Your task to perform on an android device: open app "Adobe Express: Graphic Design" (install if not already installed) and enter user name: "deliveries@gmail.com" and password: "regimentation" Image 0: 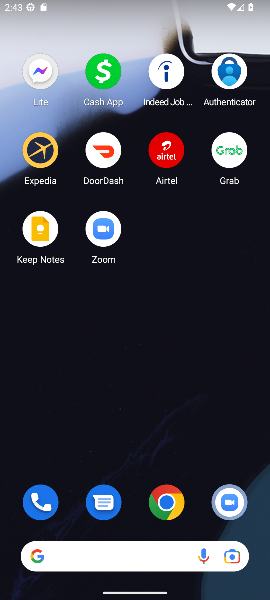
Step 0: drag from (147, 528) to (129, 150)
Your task to perform on an android device: open app "Adobe Express: Graphic Design" (install if not already installed) and enter user name: "deliveries@gmail.com" and password: "regimentation" Image 1: 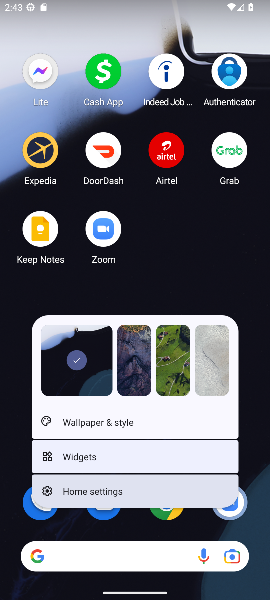
Step 1: click (169, 243)
Your task to perform on an android device: open app "Adobe Express: Graphic Design" (install if not already installed) and enter user name: "deliveries@gmail.com" and password: "regimentation" Image 2: 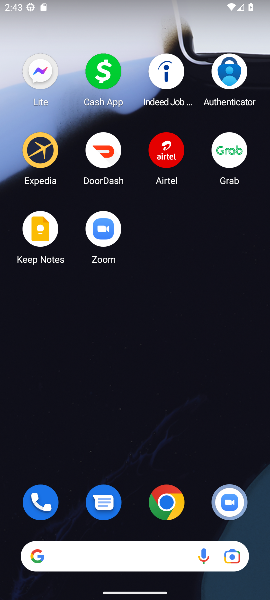
Step 2: drag from (138, 535) to (161, 72)
Your task to perform on an android device: open app "Adobe Express: Graphic Design" (install if not already installed) and enter user name: "deliveries@gmail.com" and password: "regimentation" Image 3: 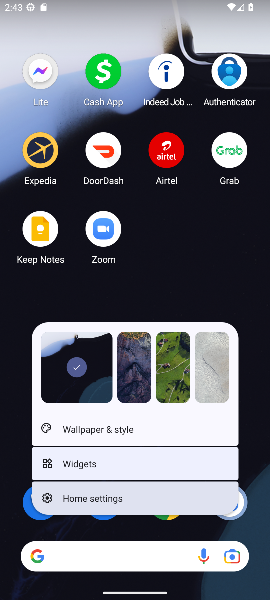
Step 3: click (159, 252)
Your task to perform on an android device: open app "Adobe Express: Graphic Design" (install if not already installed) and enter user name: "deliveries@gmail.com" and password: "regimentation" Image 4: 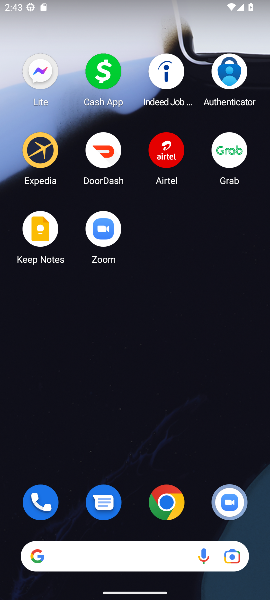
Step 4: drag from (141, 480) to (158, 114)
Your task to perform on an android device: open app "Adobe Express: Graphic Design" (install if not already installed) and enter user name: "deliveries@gmail.com" and password: "regimentation" Image 5: 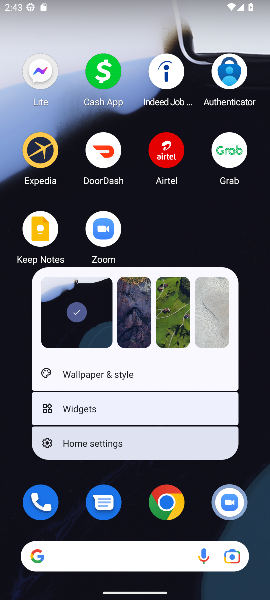
Step 5: click (168, 202)
Your task to perform on an android device: open app "Adobe Express: Graphic Design" (install if not already installed) and enter user name: "deliveries@gmail.com" and password: "regimentation" Image 6: 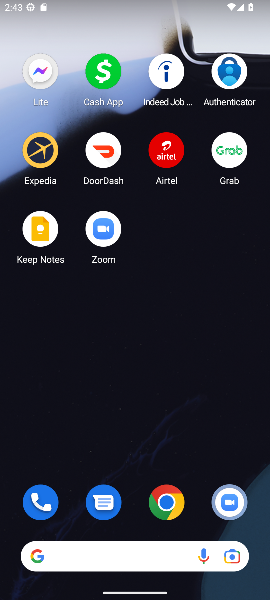
Step 6: drag from (140, 522) to (145, 54)
Your task to perform on an android device: open app "Adobe Express: Graphic Design" (install if not already installed) and enter user name: "deliveries@gmail.com" and password: "regimentation" Image 7: 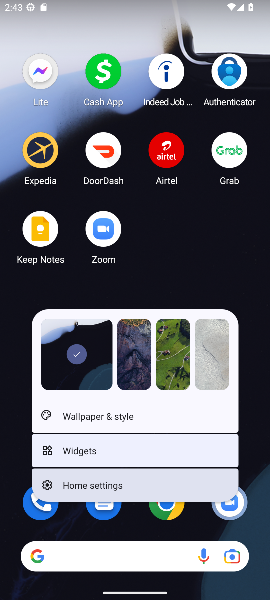
Step 7: click (166, 267)
Your task to perform on an android device: open app "Adobe Express: Graphic Design" (install if not already installed) and enter user name: "deliveries@gmail.com" and password: "regimentation" Image 8: 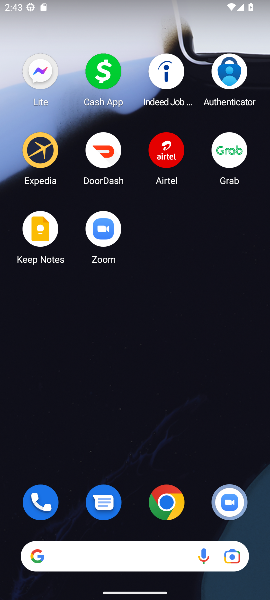
Step 8: click (186, 420)
Your task to perform on an android device: open app "Adobe Express: Graphic Design" (install if not already installed) and enter user name: "deliveries@gmail.com" and password: "regimentation" Image 9: 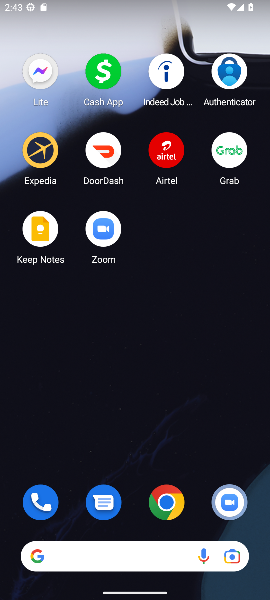
Step 9: drag from (130, 529) to (129, 59)
Your task to perform on an android device: open app "Adobe Express: Graphic Design" (install if not already installed) and enter user name: "deliveries@gmail.com" and password: "regimentation" Image 10: 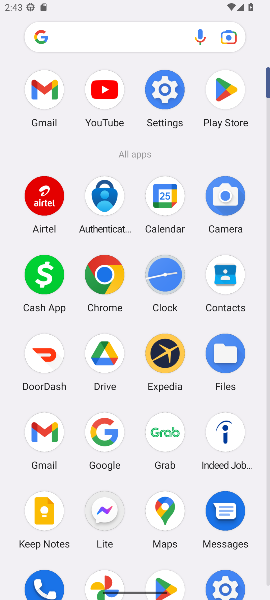
Step 10: click (217, 102)
Your task to perform on an android device: open app "Adobe Express: Graphic Design" (install if not already installed) and enter user name: "deliveries@gmail.com" and password: "regimentation" Image 11: 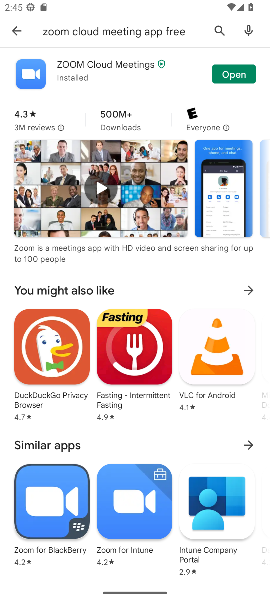
Step 11: click (222, 39)
Your task to perform on an android device: open app "Adobe Express: Graphic Design" (install if not already installed) and enter user name: "deliveries@gmail.com" and password: "regimentation" Image 12: 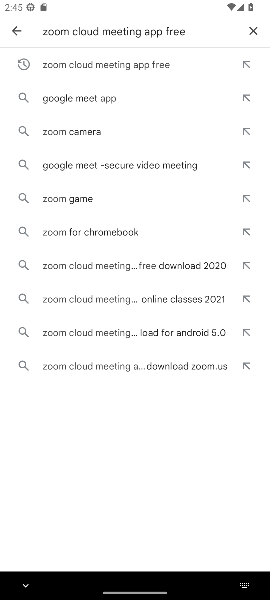
Step 12: click (248, 39)
Your task to perform on an android device: open app "Adobe Express: Graphic Design" (install if not already installed) and enter user name: "deliveries@gmail.com" and password: "regimentation" Image 13: 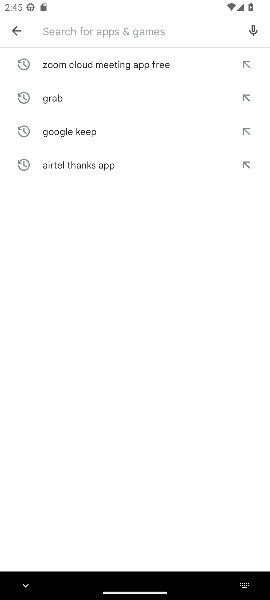
Step 13: type "adobe"
Your task to perform on an android device: open app "Adobe Express: Graphic Design" (install if not already installed) and enter user name: "deliveries@gmail.com" and password: "regimentation" Image 14: 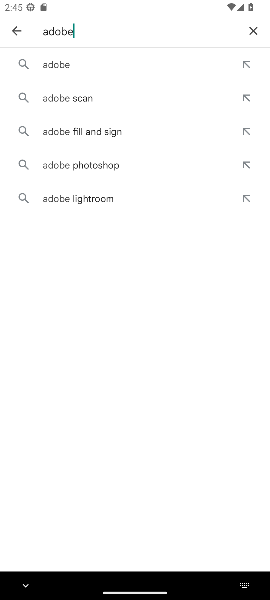
Step 14: click (96, 71)
Your task to perform on an android device: open app "Adobe Express: Graphic Design" (install if not already installed) and enter user name: "deliveries@gmail.com" and password: "regimentation" Image 15: 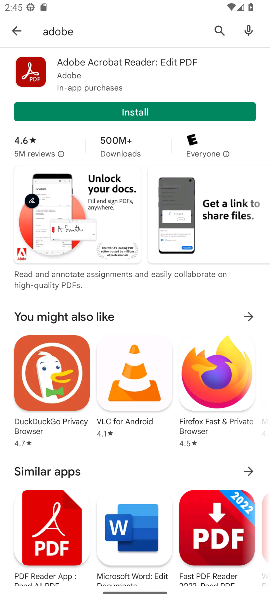
Step 15: click (170, 111)
Your task to perform on an android device: open app "Adobe Express: Graphic Design" (install if not already installed) and enter user name: "deliveries@gmail.com" and password: "regimentation" Image 16: 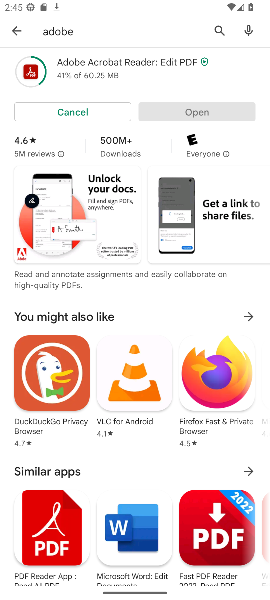
Step 16: click (220, 29)
Your task to perform on an android device: open app "Adobe Express: Graphic Design" (install if not already installed) and enter user name: "deliveries@gmail.com" and password: "regimentation" Image 17: 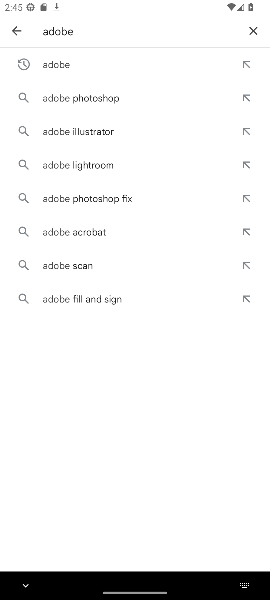
Step 17: click (248, 29)
Your task to perform on an android device: open app "Adobe Express: Graphic Design" (install if not already installed) and enter user name: "deliveries@gmail.com" and password: "regimentation" Image 18: 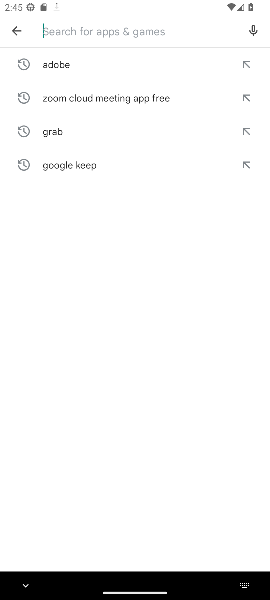
Step 18: type "deliveries@gmail.com"
Your task to perform on an android device: open app "Adobe Express: Graphic Design" (install if not already installed) and enter user name: "deliveries@gmail.com" and password: "regimentation" Image 19: 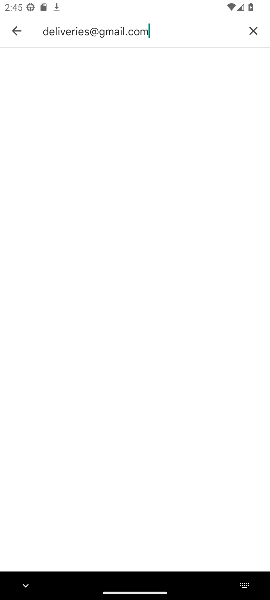
Step 19: click (250, 31)
Your task to perform on an android device: open app "Adobe Express: Graphic Design" (install if not already installed) and enter user name: "deliveries@gmail.com" and password: "regimentation" Image 20: 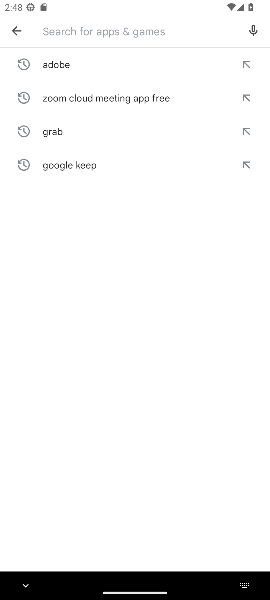
Step 20: click (13, 29)
Your task to perform on an android device: open app "Adobe Express: Graphic Design" (install if not already installed) and enter user name: "deliveries@gmail.com" and password: "regimentation" Image 21: 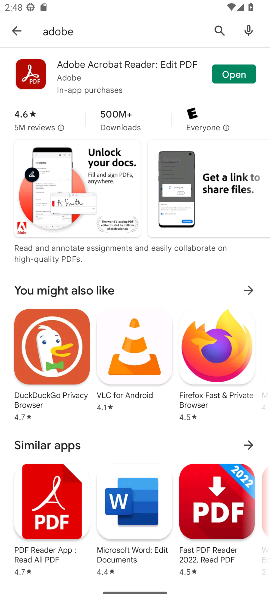
Step 21: click (224, 76)
Your task to perform on an android device: open app "Adobe Express: Graphic Design" (install if not already installed) and enter user name: "deliveries@gmail.com" and password: "regimentation" Image 22: 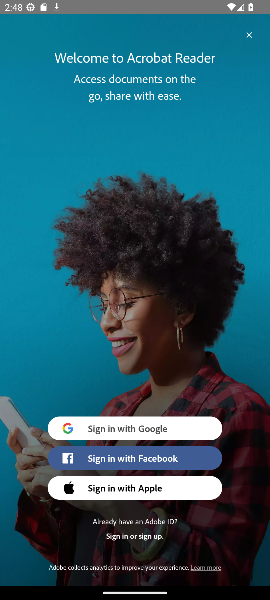
Step 22: click (139, 535)
Your task to perform on an android device: open app "Adobe Express: Graphic Design" (install if not already installed) and enter user name: "deliveries@gmail.com" and password: "regimentation" Image 23: 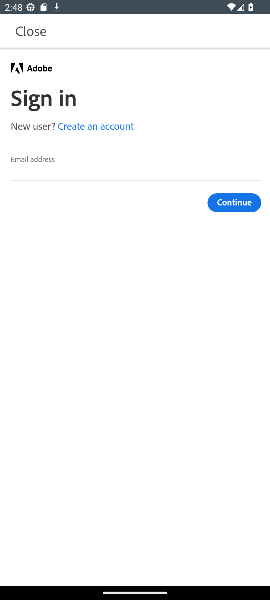
Step 23: click (108, 164)
Your task to perform on an android device: open app "Adobe Express: Graphic Design" (install if not already installed) and enter user name: "deliveries@gmail.com" and password: "regimentation" Image 24: 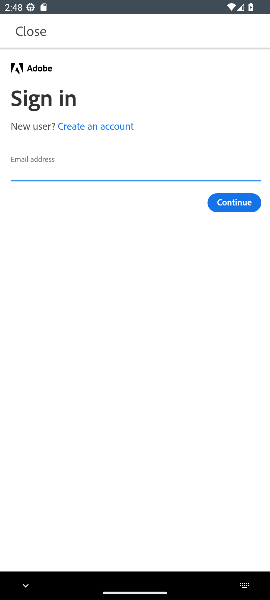
Step 24: type "deliveries@gmail.com"
Your task to perform on an android device: open app "Adobe Express: Graphic Design" (install if not already installed) and enter user name: "deliveries@gmail.com" and password: "regimentation" Image 25: 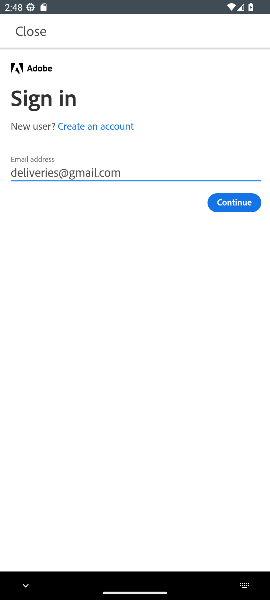
Step 25: click (247, 203)
Your task to perform on an android device: open app "Adobe Express: Graphic Design" (install if not already installed) and enter user name: "deliveries@gmail.com" and password: "regimentation" Image 26: 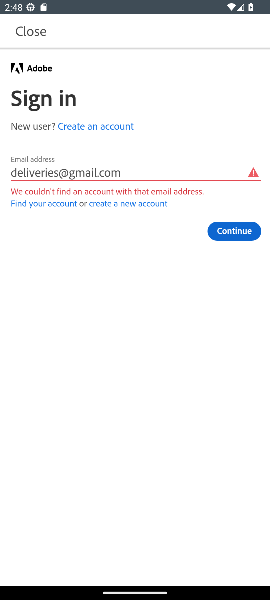
Step 26: click (231, 232)
Your task to perform on an android device: open app "Adobe Express: Graphic Design" (install if not already installed) and enter user name: "deliveries@gmail.com" and password: "regimentation" Image 27: 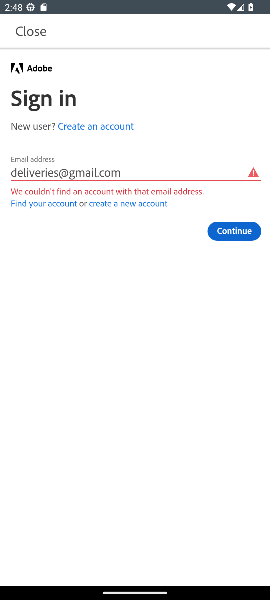
Step 27: task complete